Your task to perform on an android device: check google app version Image 0: 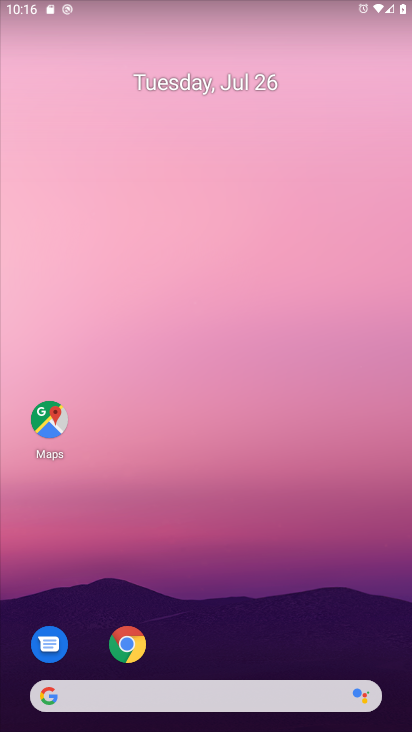
Step 0: click (40, 699)
Your task to perform on an android device: check google app version Image 1: 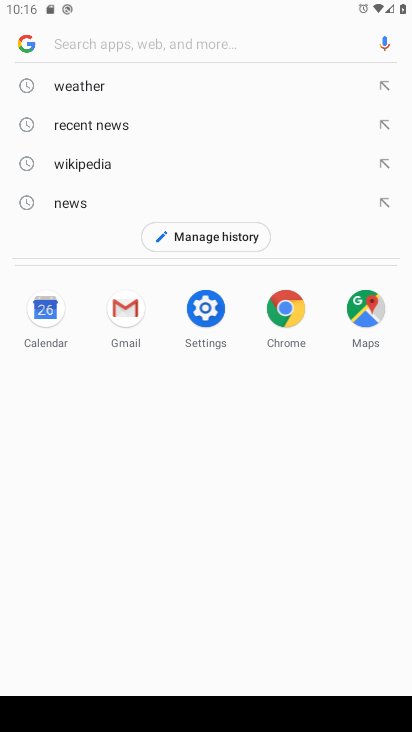
Step 1: click (26, 40)
Your task to perform on an android device: check google app version Image 2: 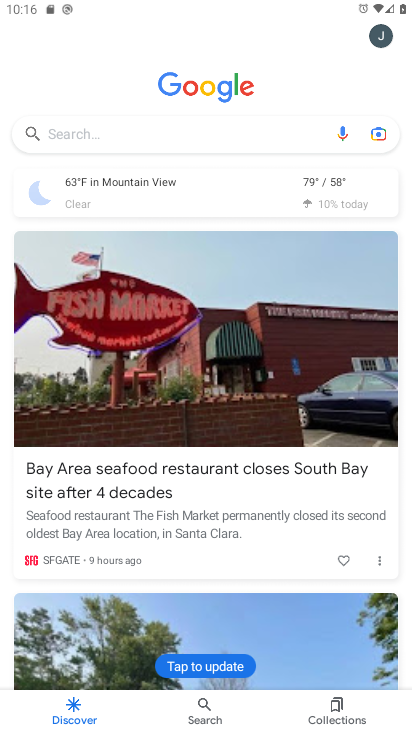
Step 2: click (389, 38)
Your task to perform on an android device: check google app version Image 3: 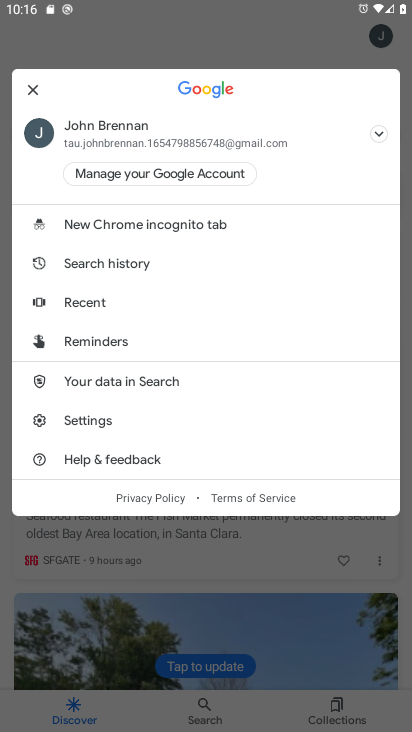
Step 3: click (97, 410)
Your task to perform on an android device: check google app version Image 4: 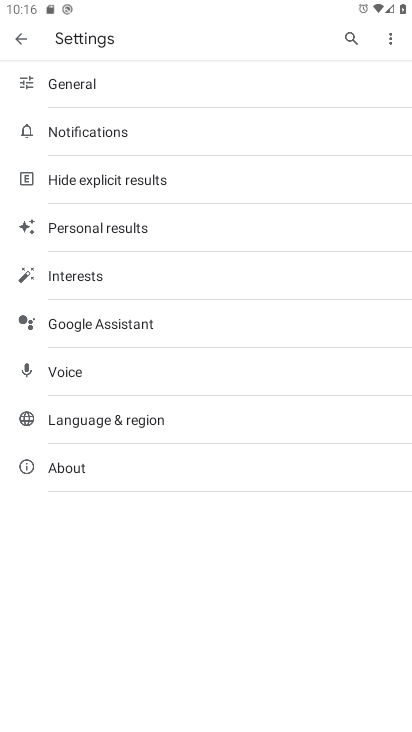
Step 4: click (81, 467)
Your task to perform on an android device: check google app version Image 5: 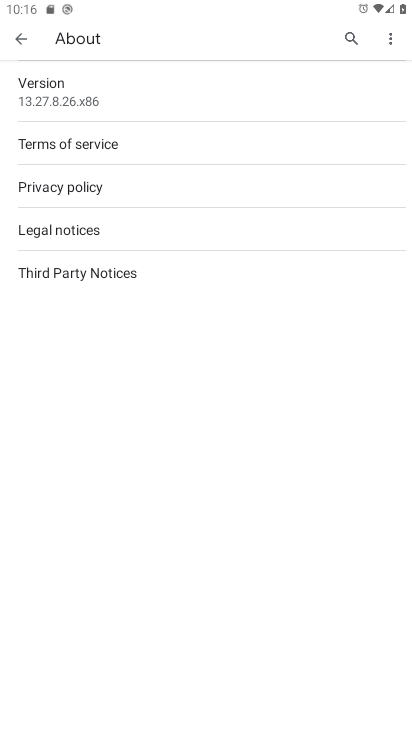
Step 5: task complete